Your task to perform on an android device: set the timer Image 0: 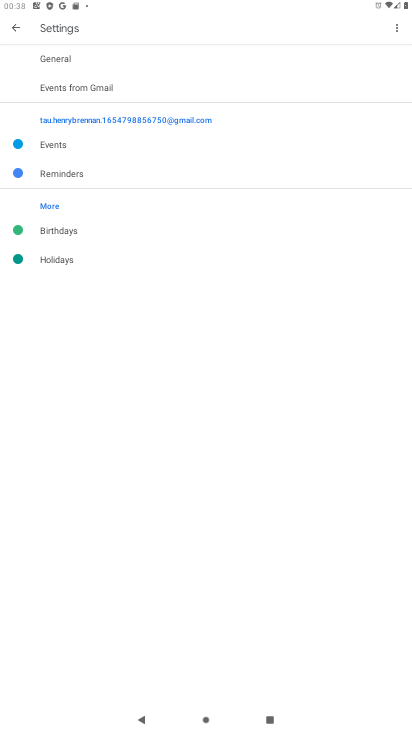
Step 0: press home button
Your task to perform on an android device: set the timer Image 1: 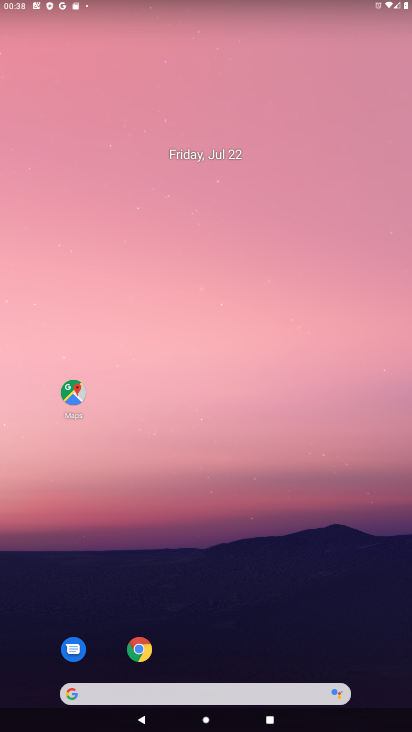
Step 1: drag from (272, 442) to (275, 84)
Your task to perform on an android device: set the timer Image 2: 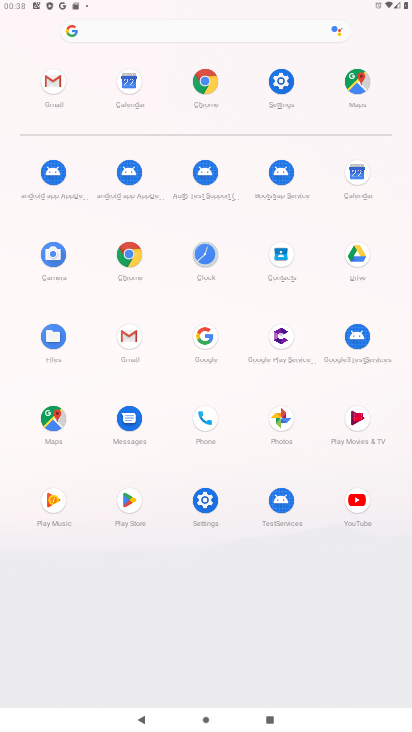
Step 2: click (202, 251)
Your task to perform on an android device: set the timer Image 3: 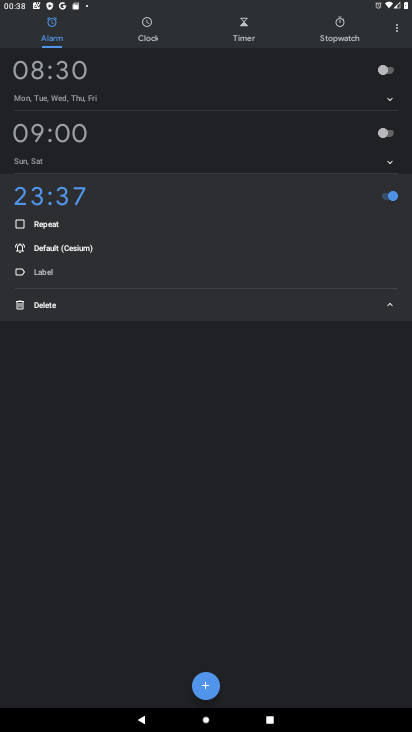
Step 3: click (242, 32)
Your task to perform on an android device: set the timer Image 4: 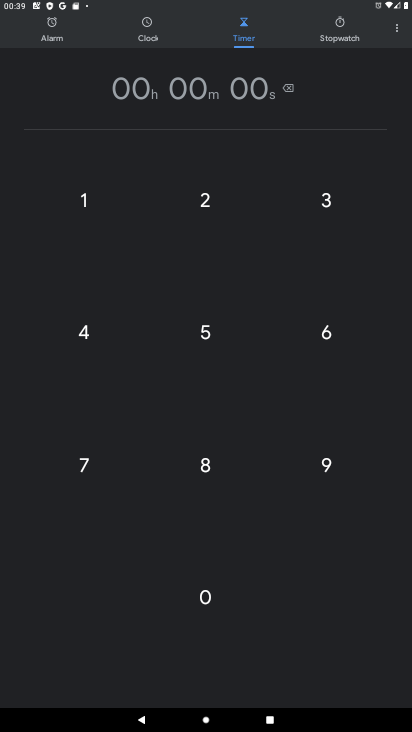
Step 4: click (207, 335)
Your task to perform on an android device: set the timer Image 5: 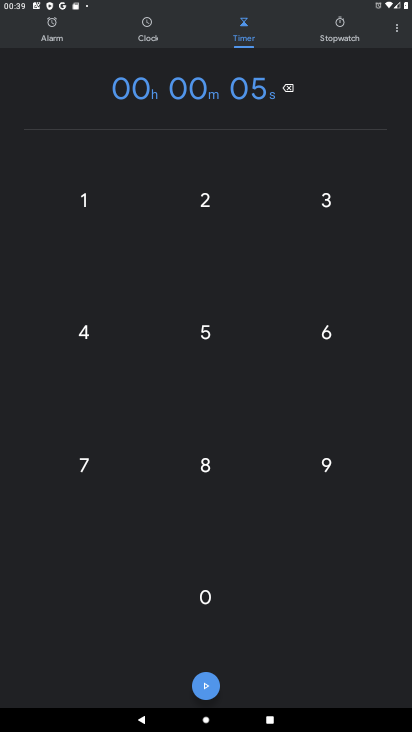
Step 5: task complete